Your task to perform on an android device: Open Youtube and go to the subscriptions tab Image 0: 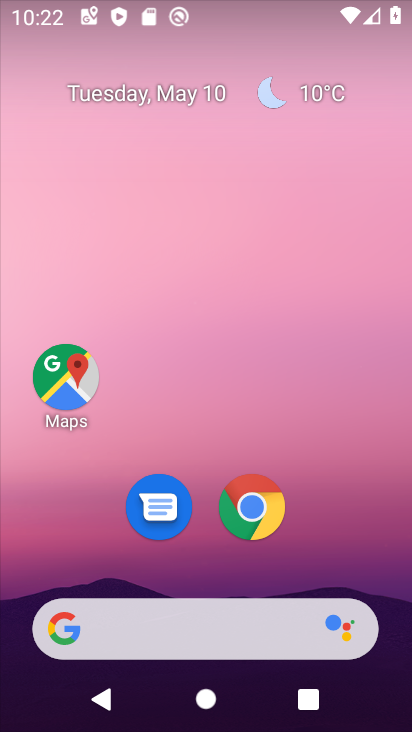
Step 0: drag from (316, 515) to (329, 95)
Your task to perform on an android device: Open Youtube and go to the subscriptions tab Image 1: 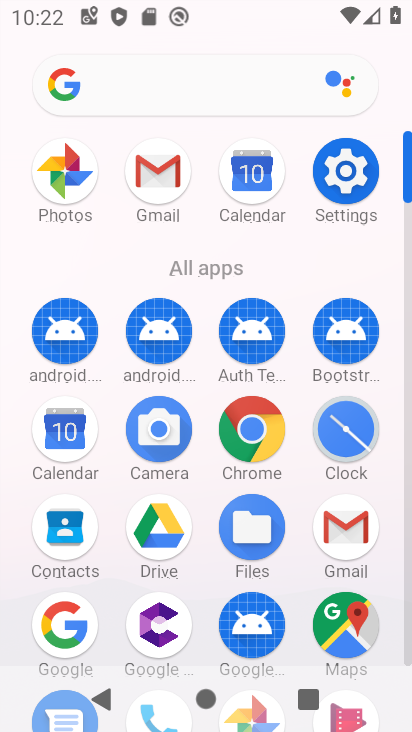
Step 1: drag from (308, 652) to (341, 169)
Your task to perform on an android device: Open Youtube and go to the subscriptions tab Image 2: 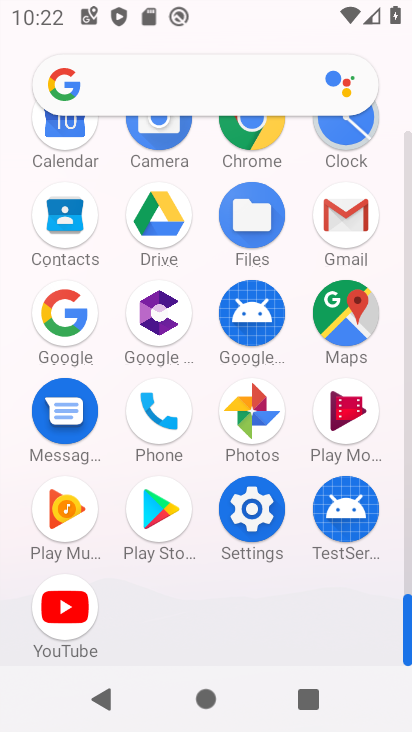
Step 2: click (81, 619)
Your task to perform on an android device: Open Youtube and go to the subscriptions tab Image 3: 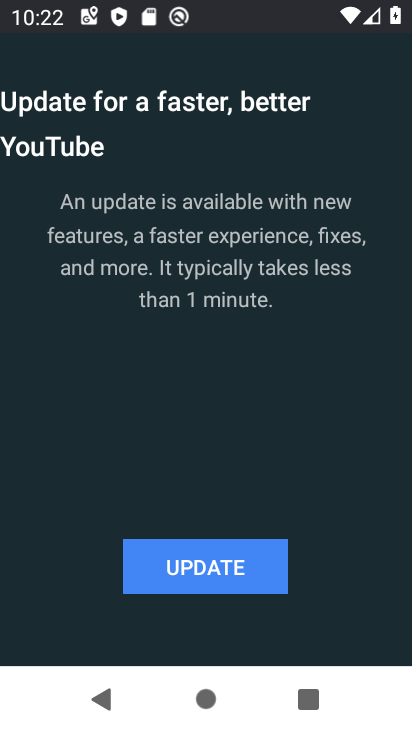
Step 3: click (235, 575)
Your task to perform on an android device: Open Youtube and go to the subscriptions tab Image 4: 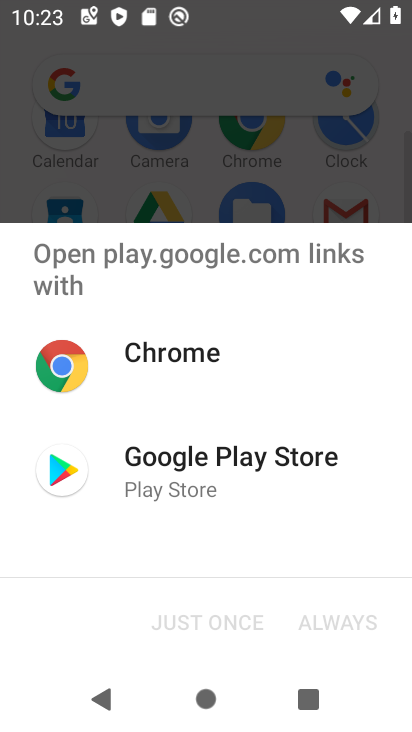
Step 4: click (168, 488)
Your task to perform on an android device: Open Youtube and go to the subscriptions tab Image 5: 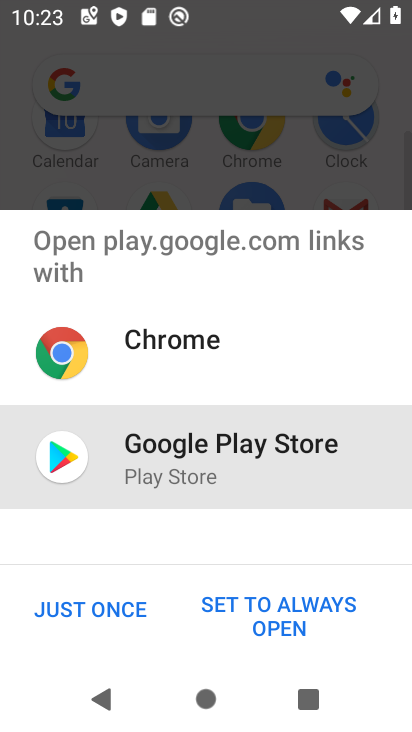
Step 5: click (98, 614)
Your task to perform on an android device: Open Youtube and go to the subscriptions tab Image 6: 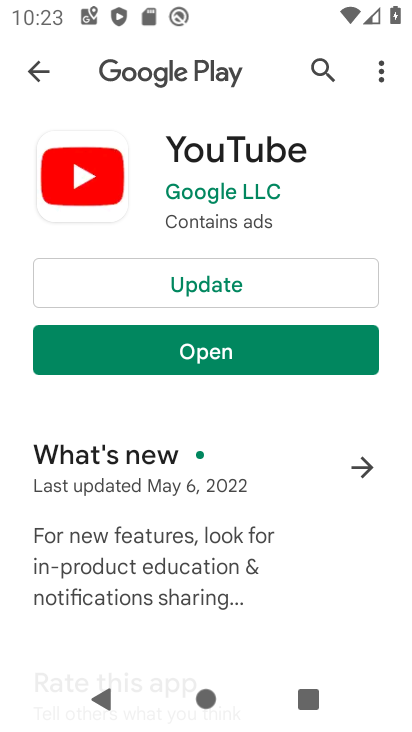
Step 6: click (298, 277)
Your task to perform on an android device: Open Youtube and go to the subscriptions tab Image 7: 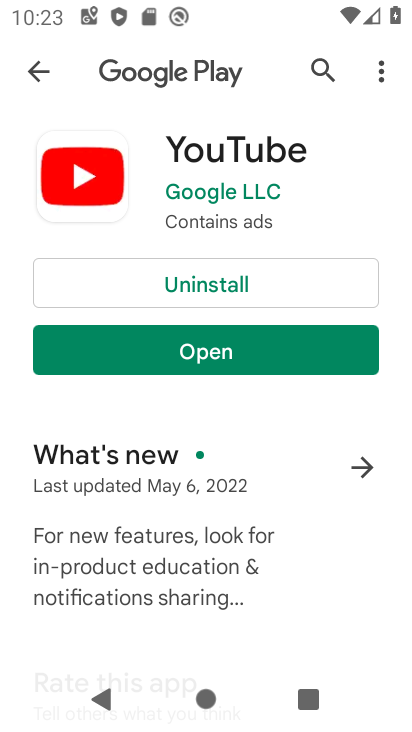
Step 7: click (197, 357)
Your task to perform on an android device: Open Youtube and go to the subscriptions tab Image 8: 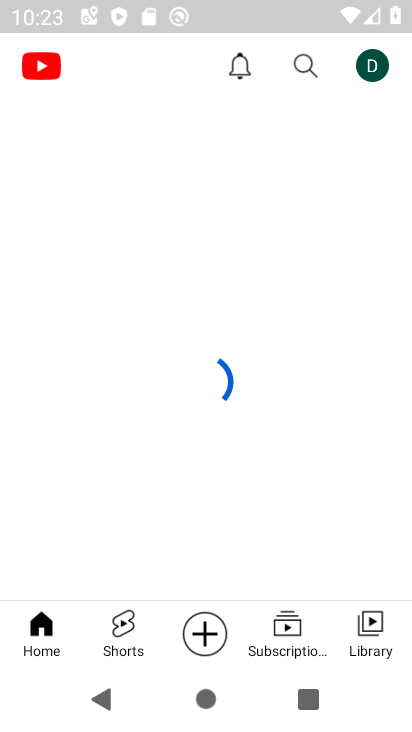
Step 8: click (258, 642)
Your task to perform on an android device: Open Youtube and go to the subscriptions tab Image 9: 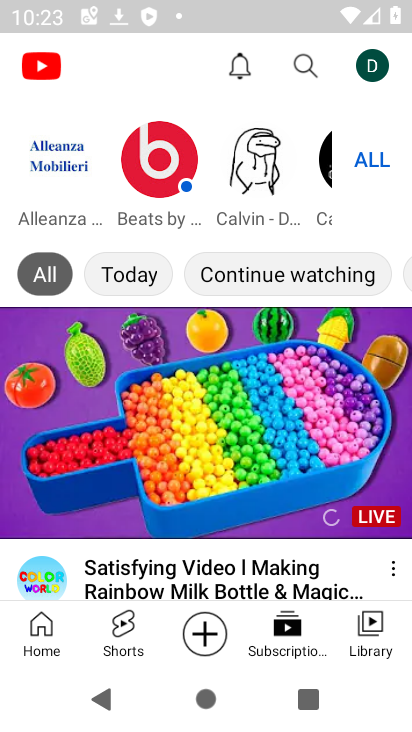
Step 9: task complete